Your task to perform on an android device: turn on priority inbox in the gmail app Image 0: 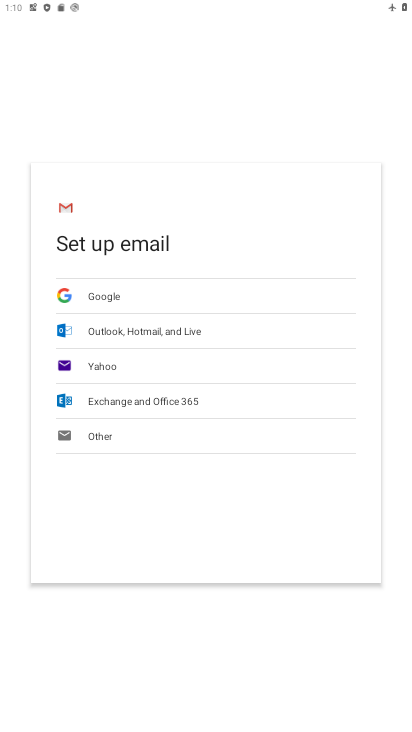
Step 0: press home button
Your task to perform on an android device: turn on priority inbox in the gmail app Image 1: 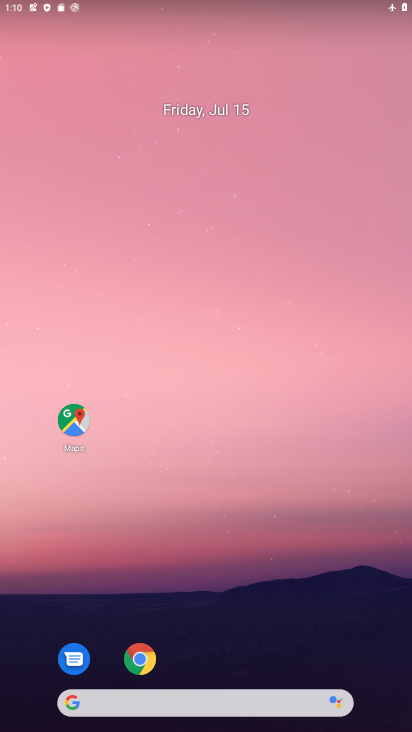
Step 1: drag from (223, 652) to (244, 121)
Your task to perform on an android device: turn on priority inbox in the gmail app Image 2: 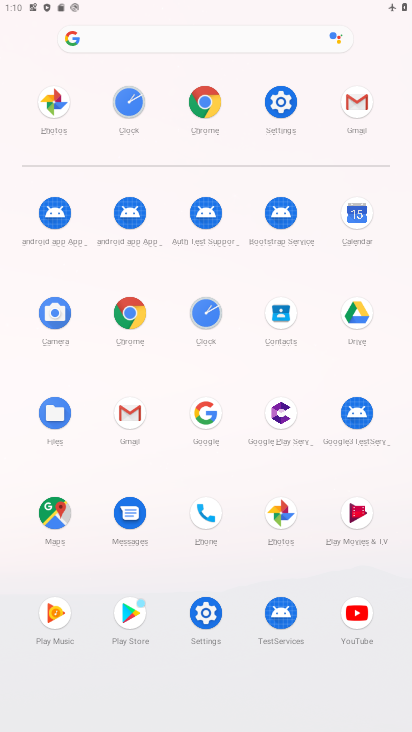
Step 2: click (346, 102)
Your task to perform on an android device: turn on priority inbox in the gmail app Image 3: 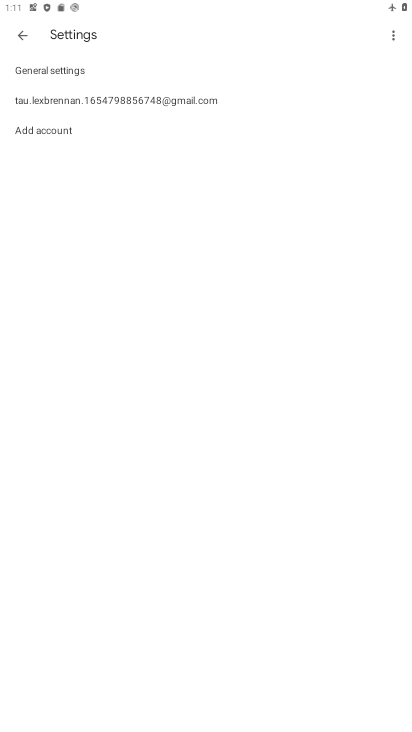
Step 3: click (121, 105)
Your task to perform on an android device: turn on priority inbox in the gmail app Image 4: 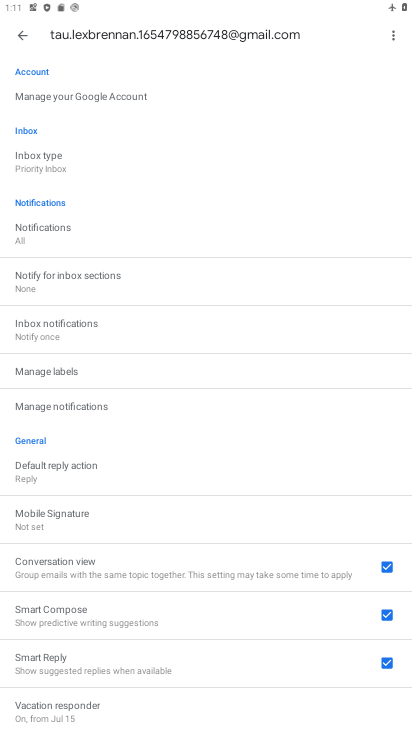
Step 4: click (86, 166)
Your task to perform on an android device: turn on priority inbox in the gmail app Image 5: 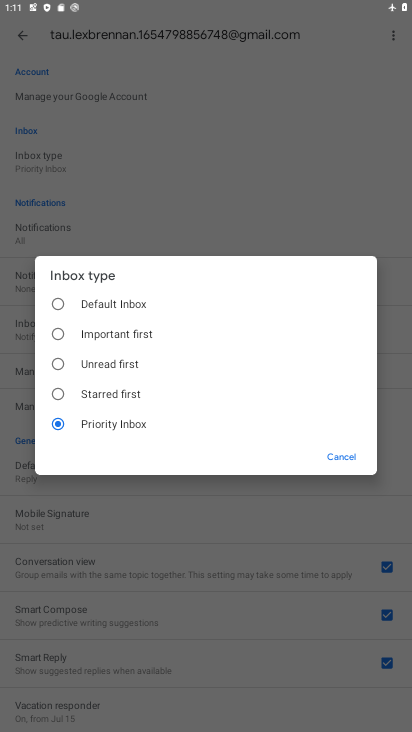
Step 5: task complete